Your task to perform on an android device: toggle location history Image 0: 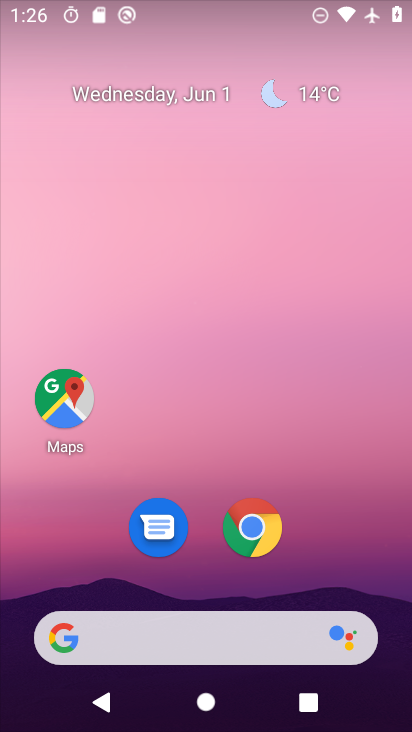
Step 0: drag from (267, 407) to (272, 165)
Your task to perform on an android device: toggle location history Image 1: 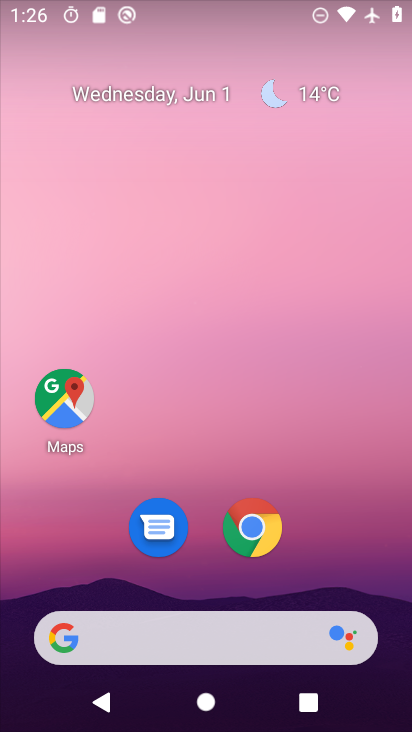
Step 1: drag from (224, 658) to (123, 2)
Your task to perform on an android device: toggle location history Image 2: 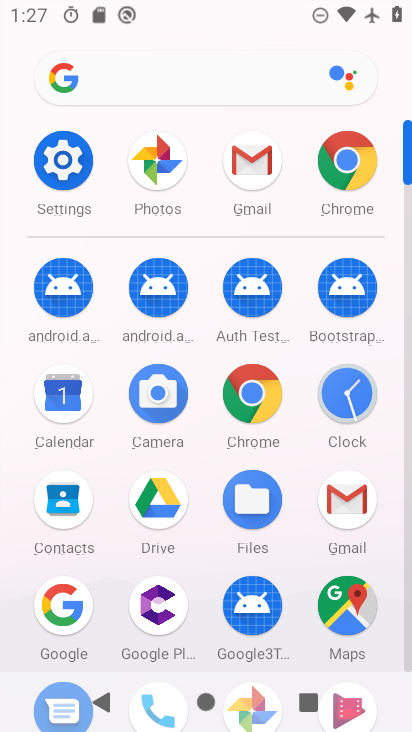
Step 2: click (60, 175)
Your task to perform on an android device: toggle location history Image 3: 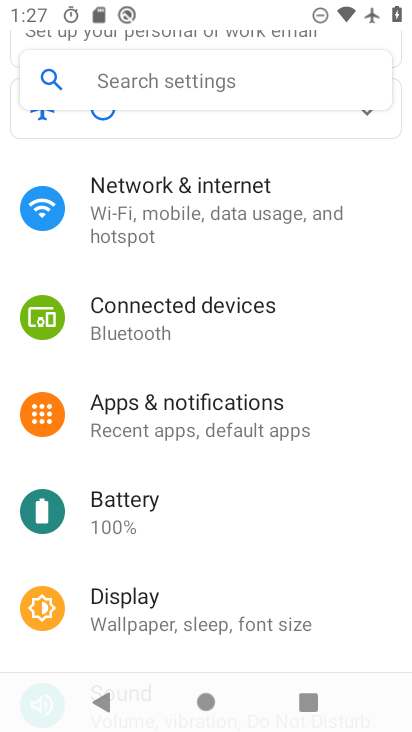
Step 3: drag from (181, 525) to (243, 208)
Your task to perform on an android device: toggle location history Image 4: 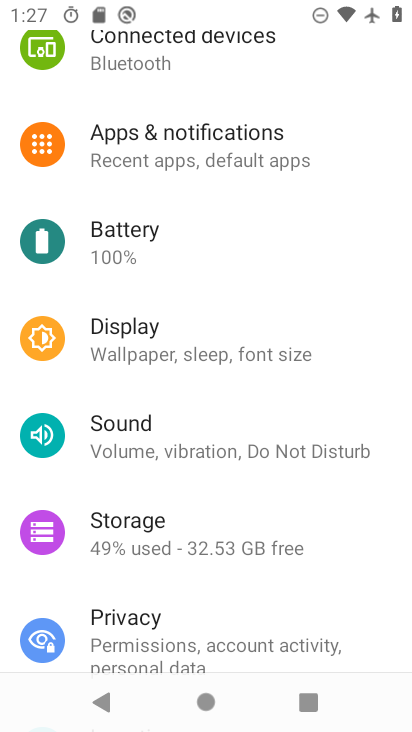
Step 4: drag from (173, 532) to (272, 140)
Your task to perform on an android device: toggle location history Image 5: 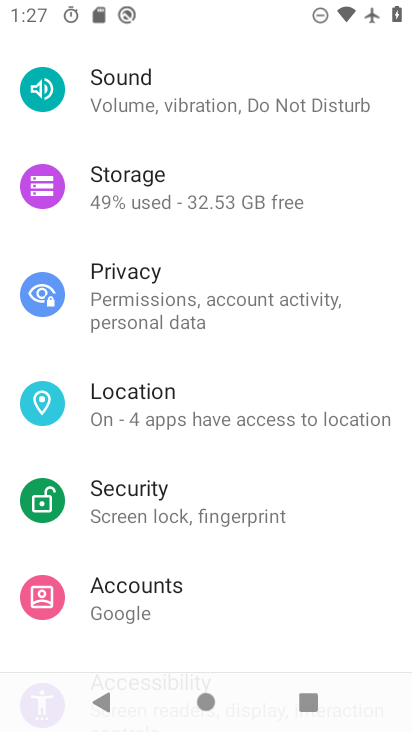
Step 5: click (178, 426)
Your task to perform on an android device: toggle location history Image 6: 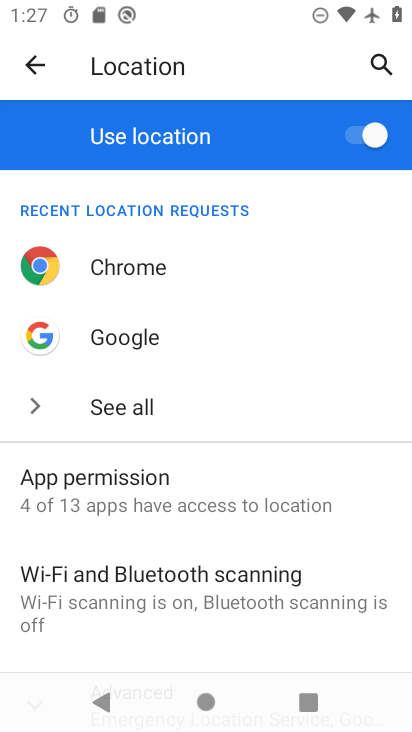
Step 6: drag from (168, 549) to (231, 227)
Your task to perform on an android device: toggle location history Image 7: 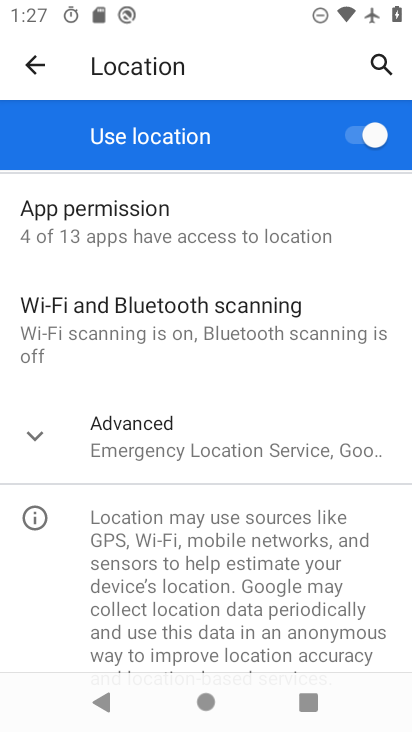
Step 7: click (199, 587)
Your task to perform on an android device: toggle location history Image 8: 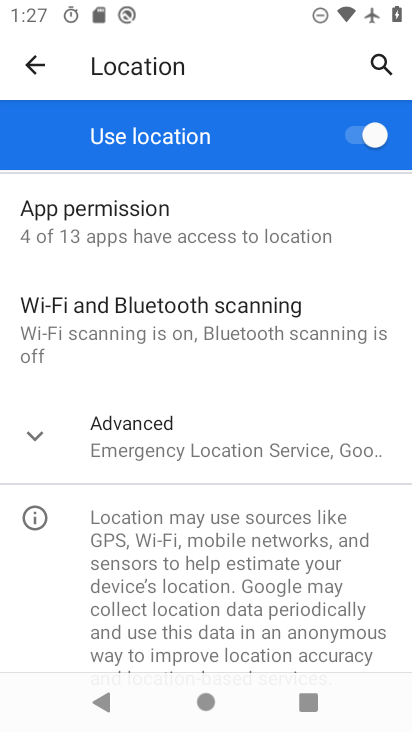
Step 8: click (206, 429)
Your task to perform on an android device: toggle location history Image 9: 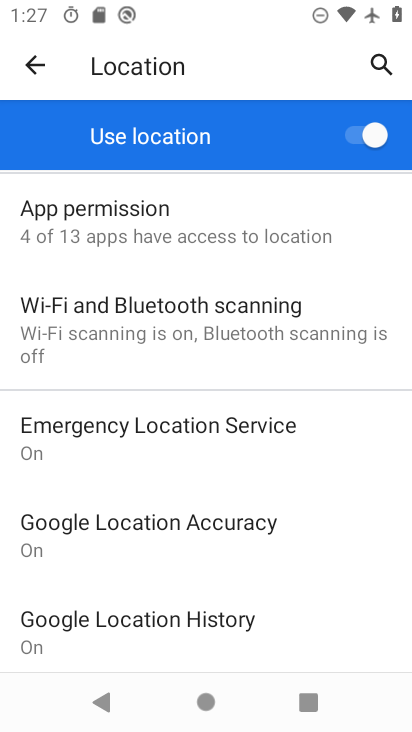
Step 9: click (193, 621)
Your task to perform on an android device: toggle location history Image 10: 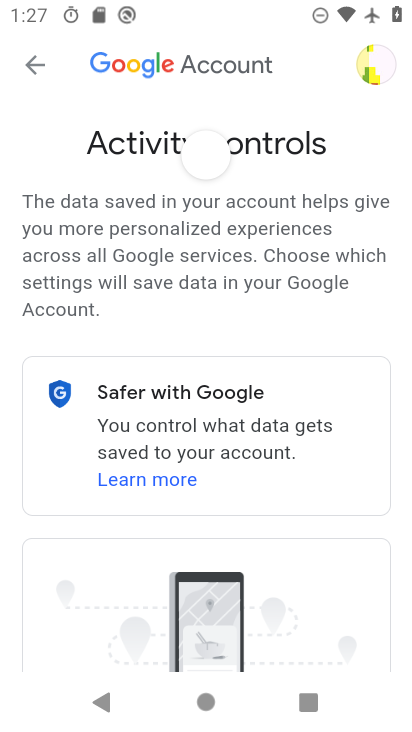
Step 10: drag from (266, 587) to (263, 155)
Your task to perform on an android device: toggle location history Image 11: 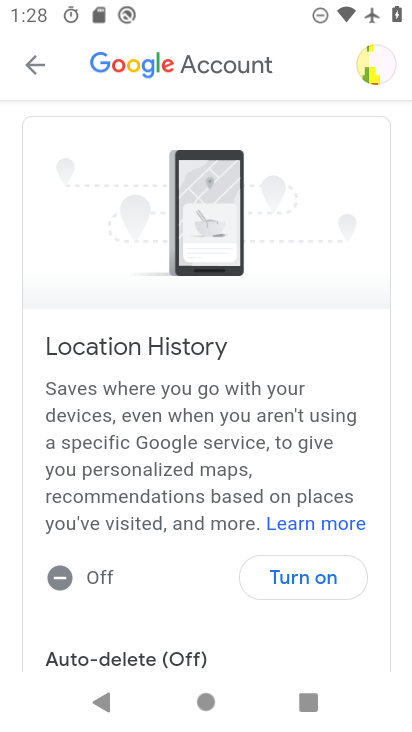
Step 11: click (307, 576)
Your task to perform on an android device: toggle location history Image 12: 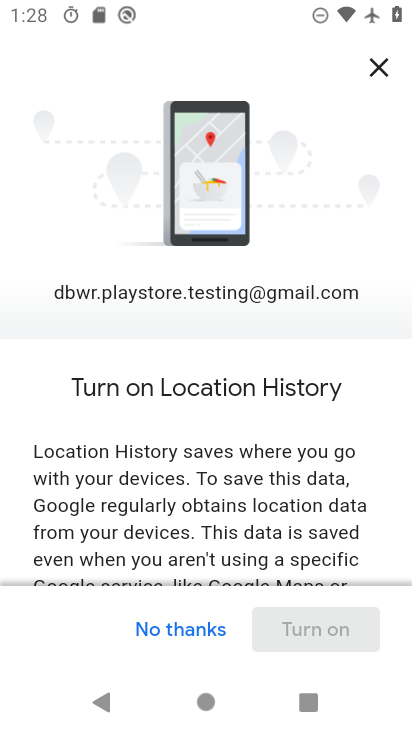
Step 12: drag from (324, 270) to (359, 114)
Your task to perform on an android device: toggle location history Image 13: 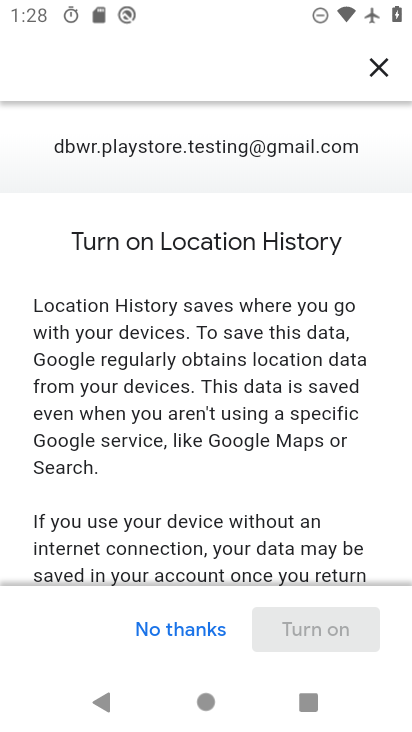
Step 13: click (339, 84)
Your task to perform on an android device: toggle location history Image 14: 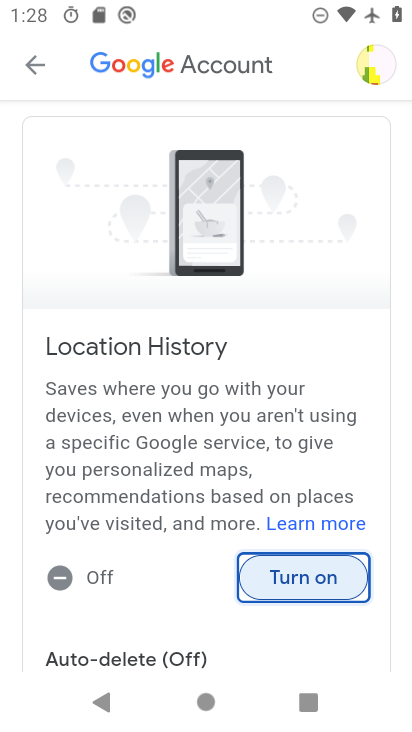
Step 14: drag from (255, 473) to (282, 274)
Your task to perform on an android device: toggle location history Image 15: 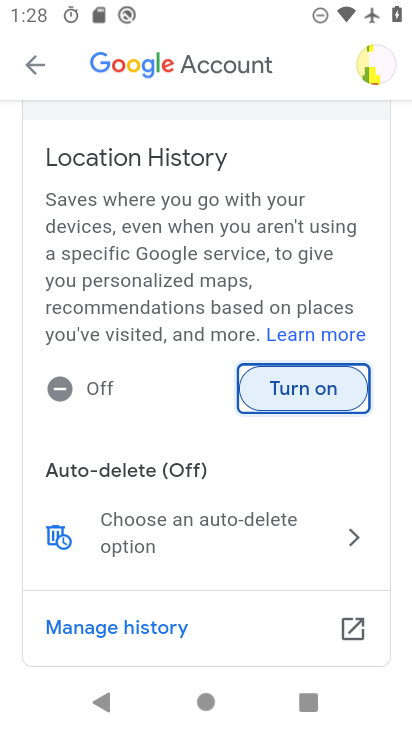
Step 15: click (292, 385)
Your task to perform on an android device: toggle location history Image 16: 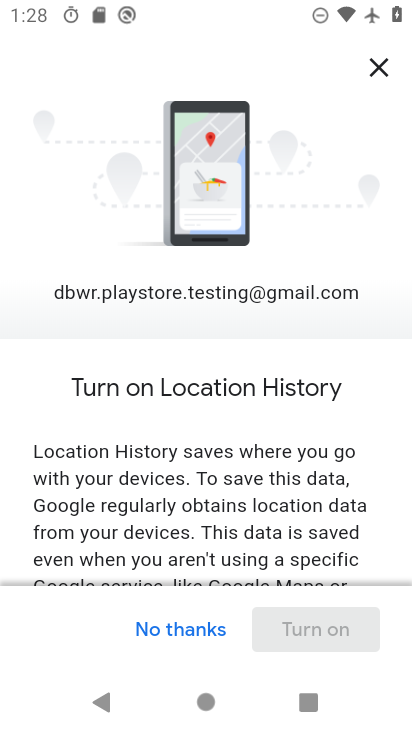
Step 16: drag from (270, 501) to (285, 148)
Your task to perform on an android device: toggle location history Image 17: 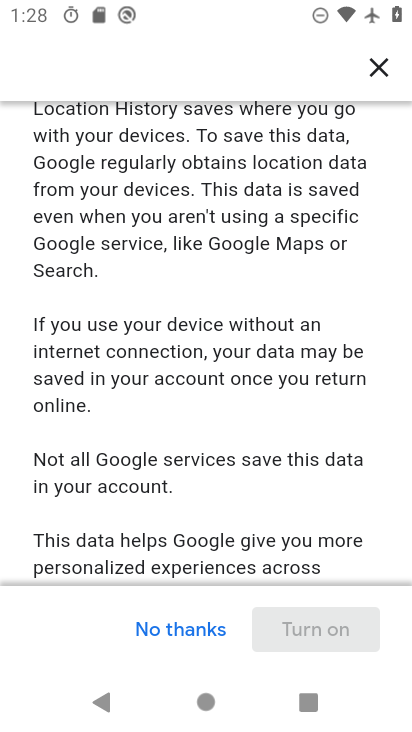
Step 17: drag from (300, 515) to (358, 26)
Your task to perform on an android device: toggle location history Image 18: 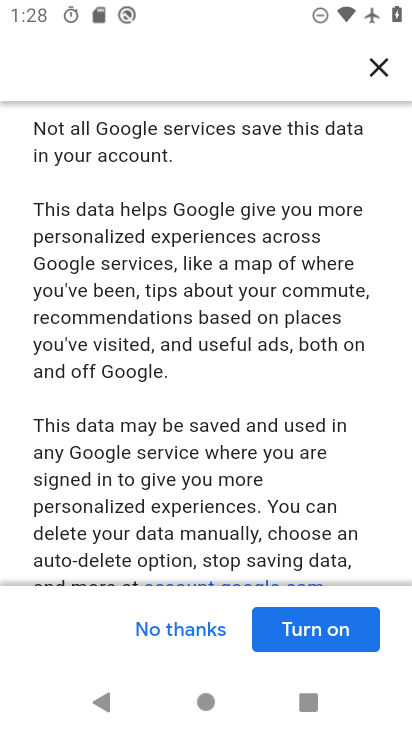
Step 18: click (301, 635)
Your task to perform on an android device: toggle location history Image 19: 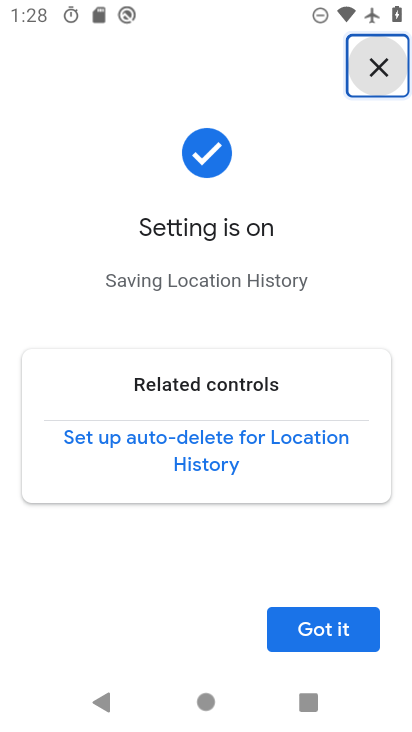
Step 19: click (310, 638)
Your task to perform on an android device: toggle location history Image 20: 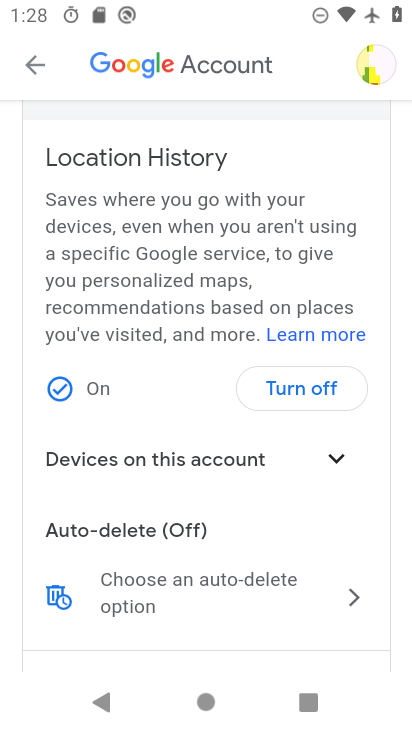
Step 20: task complete